Your task to perform on an android device: toggle notifications settings in the gmail app Image 0: 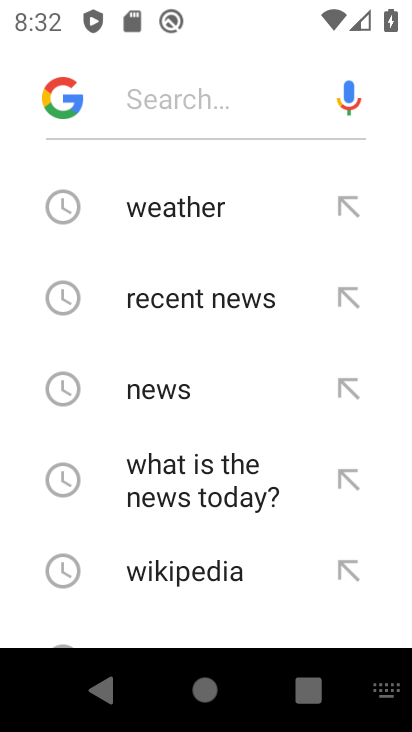
Step 0: press home button
Your task to perform on an android device: toggle notifications settings in the gmail app Image 1: 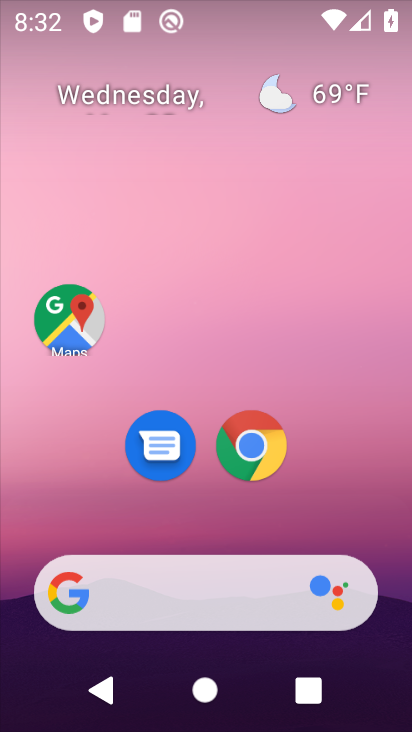
Step 1: drag from (322, 503) to (339, 122)
Your task to perform on an android device: toggle notifications settings in the gmail app Image 2: 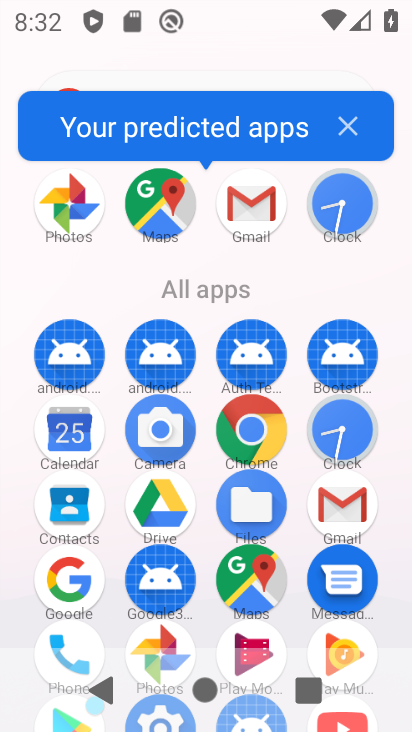
Step 2: click (342, 496)
Your task to perform on an android device: toggle notifications settings in the gmail app Image 3: 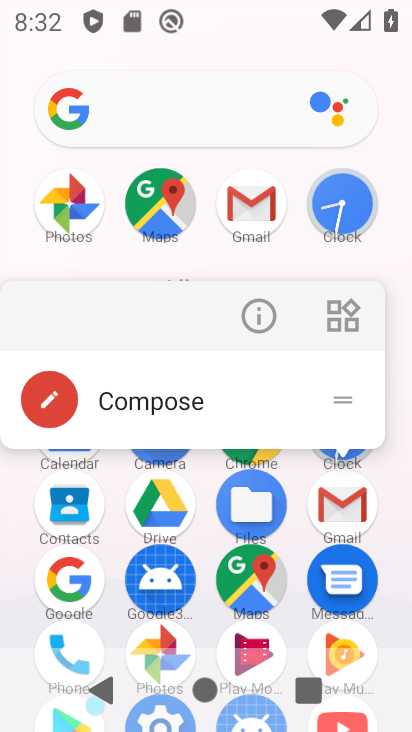
Step 3: click (255, 319)
Your task to perform on an android device: toggle notifications settings in the gmail app Image 4: 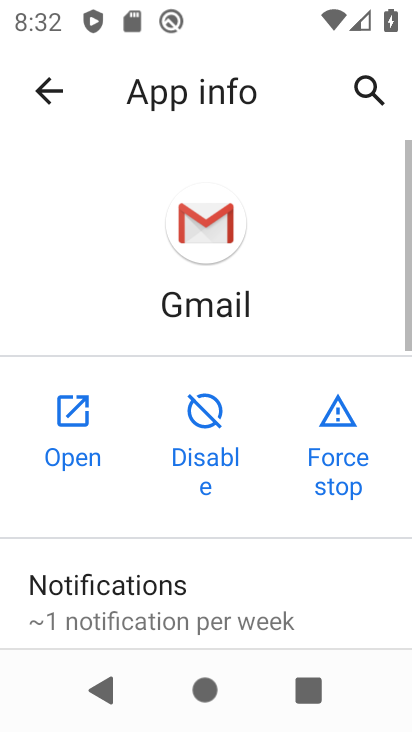
Step 4: click (130, 603)
Your task to perform on an android device: toggle notifications settings in the gmail app Image 5: 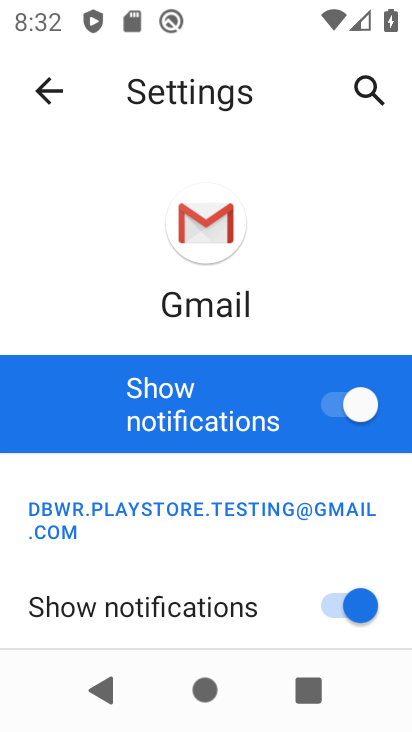
Step 5: click (340, 387)
Your task to perform on an android device: toggle notifications settings in the gmail app Image 6: 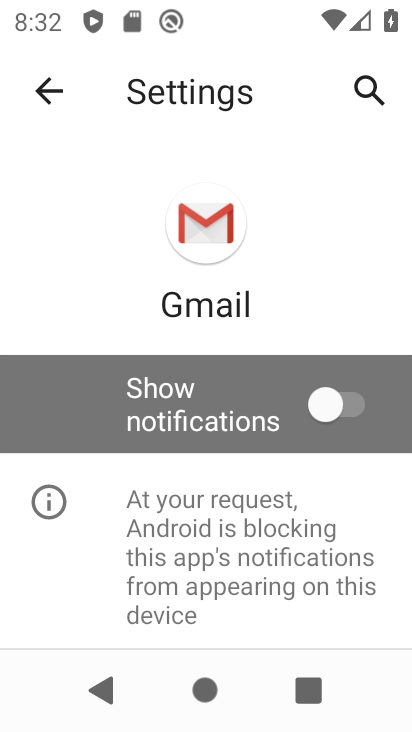
Step 6: task complete